Your task to perform on an android device: turn on data saver in the chrome app Image 0: 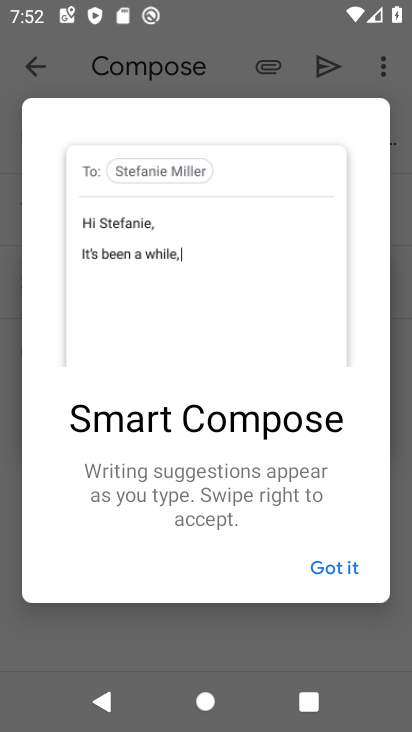
Step 0: press home button
Your task to perform on an android device: turn on data saver in the chrome app Image 1: 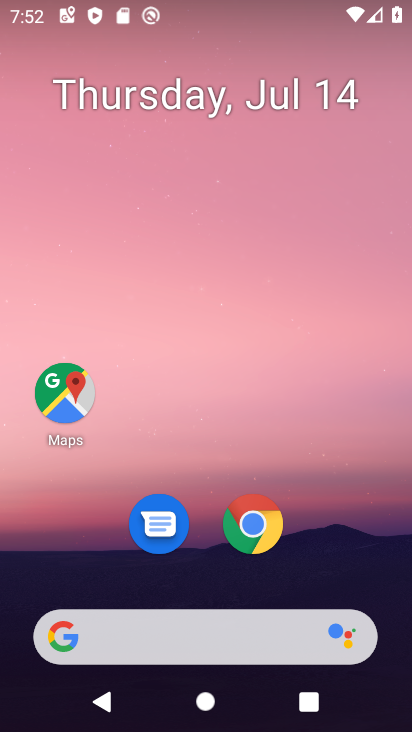
Step 1: click (248, 522)
Your task to perform on an android device: turn on data saver in the chrome app Image 2: 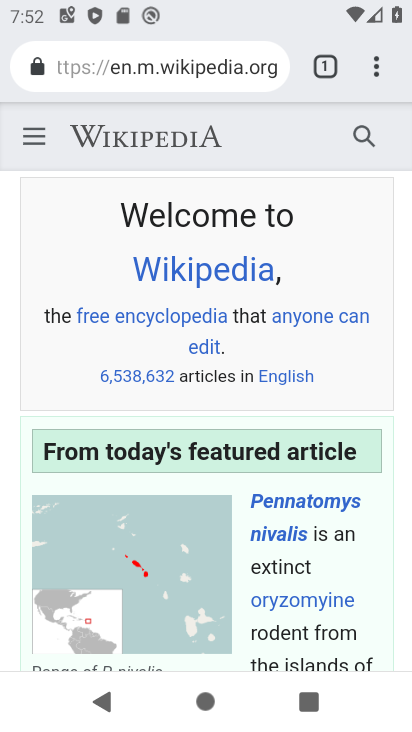
Step 2: click (370, 68)
Your task to perform on an android device: turn on data saver in the chrome app Image 3: 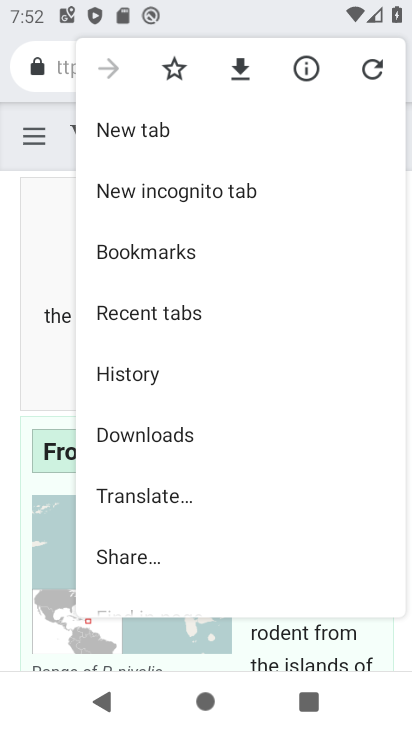
Step 3: drag from (278, 496) to (307, 142)
Your task to perform on an android device: turn on data saver in the chrome app Image 4: 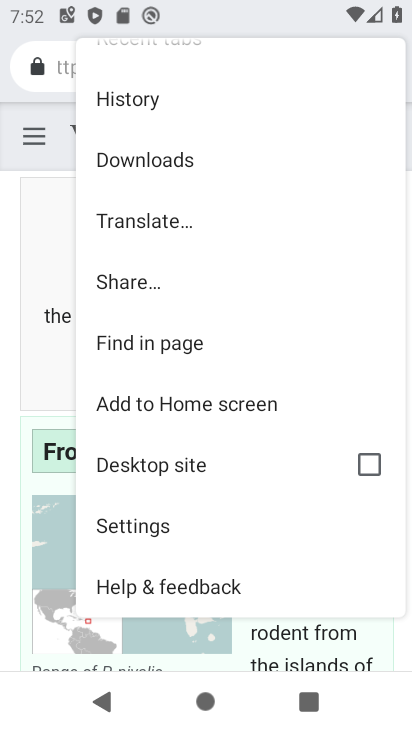
Step 4: click (148, 529)
Your task to perform on an android device: turn on data saver in the chrome app Image 5: 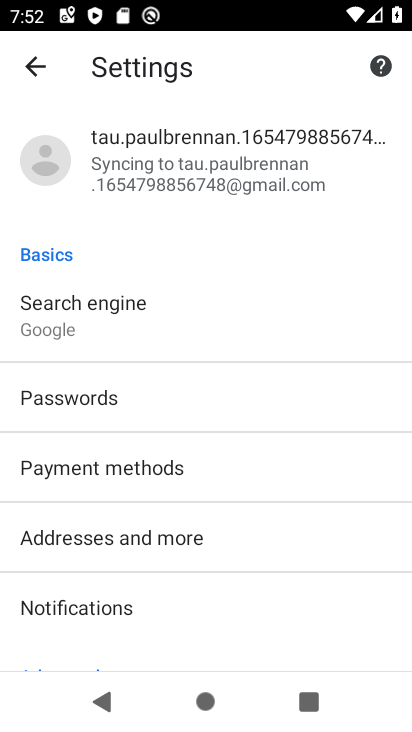
Step 5: drag from (146, 538) to (234, 133)
Your task to perform on an android device: turn on data saver in the chrome app Image 6: 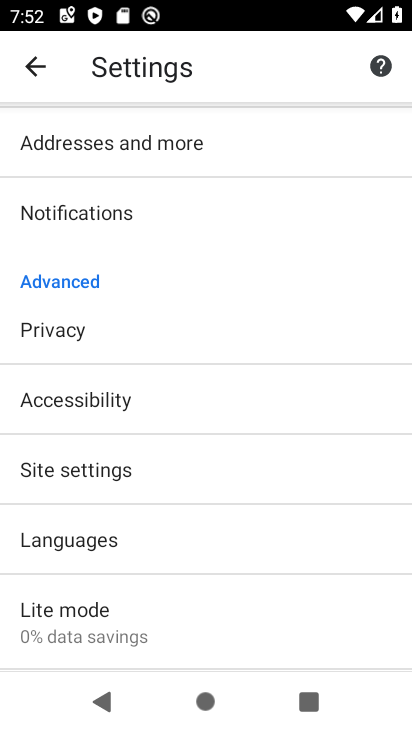
Step 6: click (199, 629)
Your task to perform on an android device: turn on data saver in the chrome app Image 7: 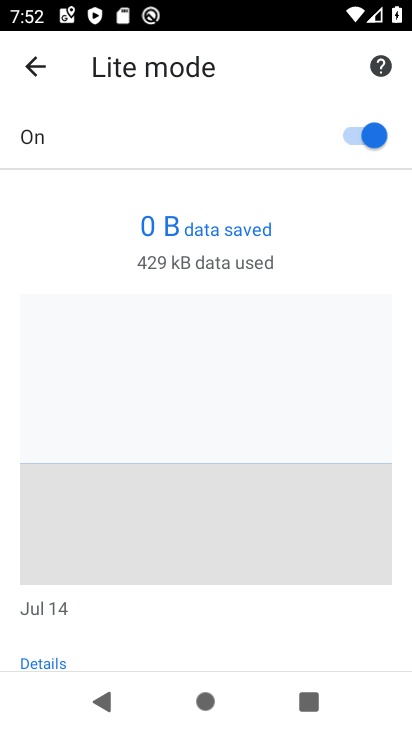
Step 7: task complete